Your task to perform on an android device: change your default location settings in chrome Image 0: 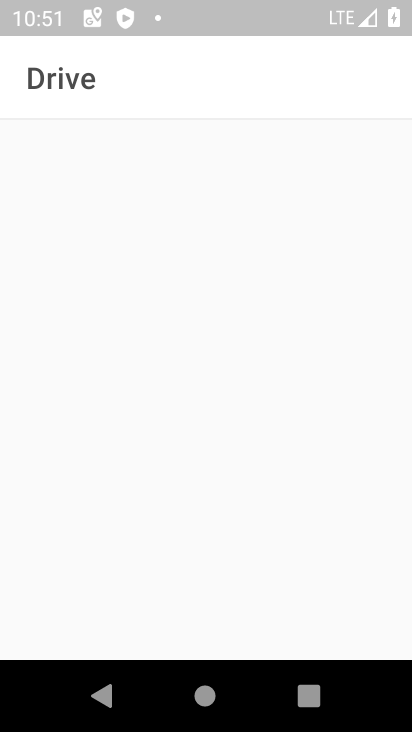
Step 0: press back button
Your task to perform on an android device: change your default location settings in chrome Image 1: 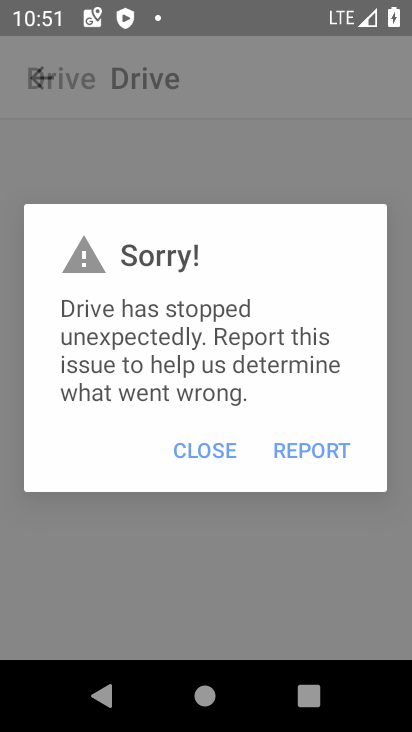
Step 1: press home button
Your task to perform on an android device: change your default location settings in chrome Image 2: 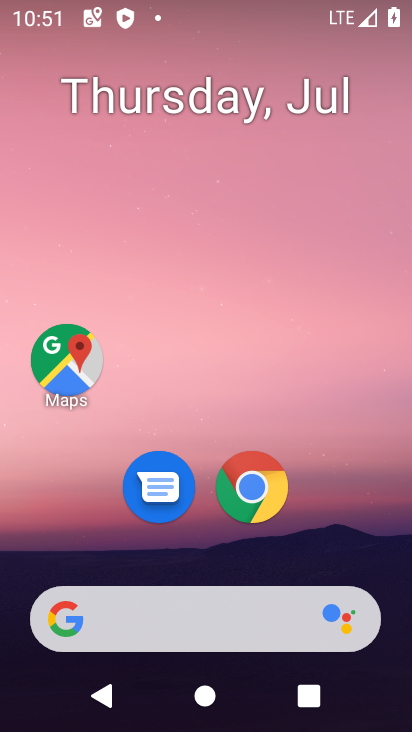
Step 2: drag from (176, 588) to (260, 3)
Your task to perform on an android device: change your default location settings in chrome Image 3: 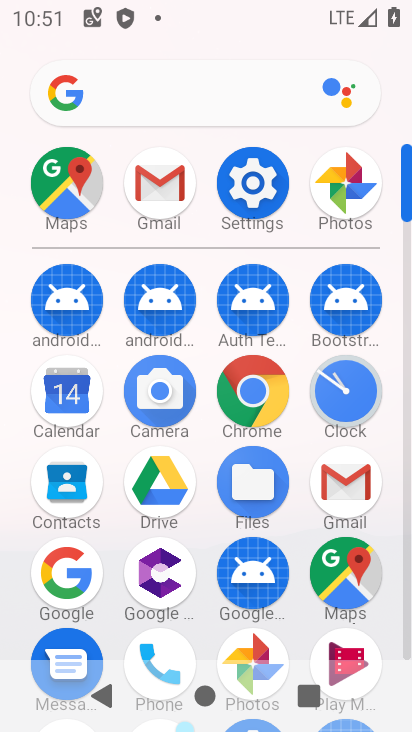
Step 3: click (273, 390)
Your task to perform on an android device: change your default location settings in chrome Image 4: 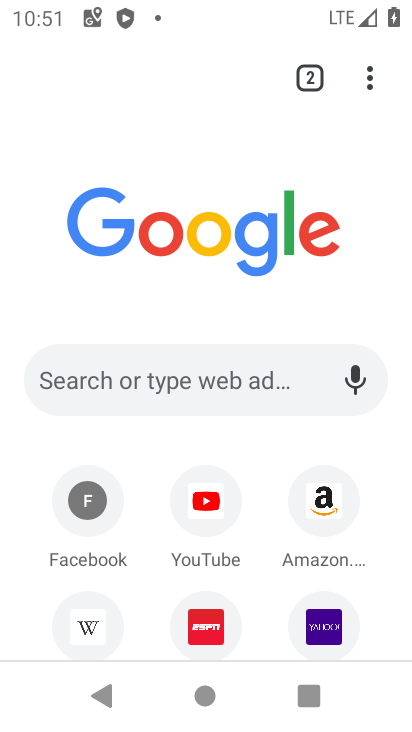
Step 4: drag from (372, 71) to (115, 540)
Your task to perform on an android device: change your default location settings in chrome Image 5: 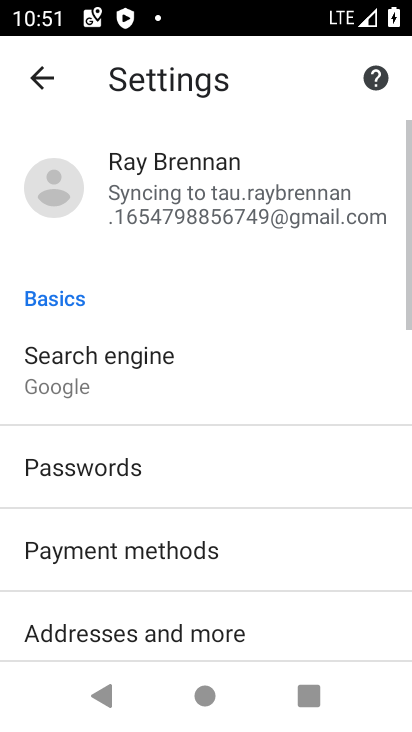
Step 5: drag from (99, 627) to (264, 178)
Your task to perform on an android device: change your default location settings in chrome Image 6: 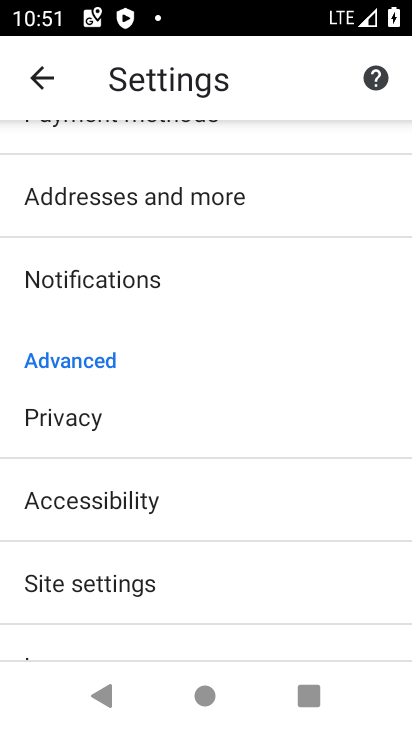
Step 6: drag from (118, 562) to (174, 236)
Your task to perform on an android device: change your default location settings in chrome Image 7: 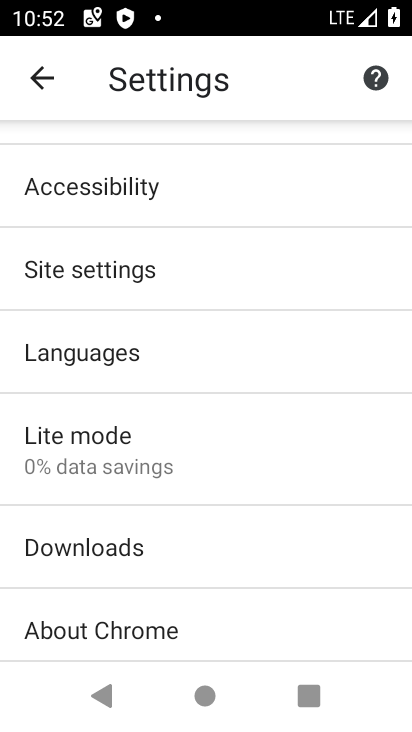
Step 7: click (159, 281)
Your task to perform on an android device: change your default location settings in chrome Image 8: 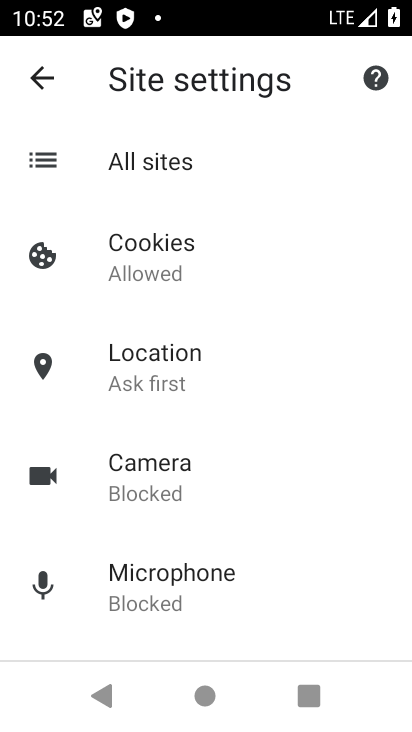
Step 8: click (132, 363)
Your task to perform on an android device: change your default location settings in chrome Image 9: 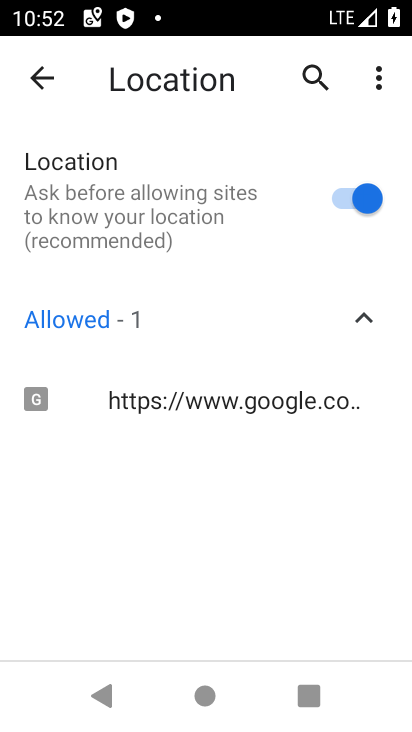
Step 9: click (196, 395)
Your task to perform on an android device: change your default location settings in chrome Image 10: 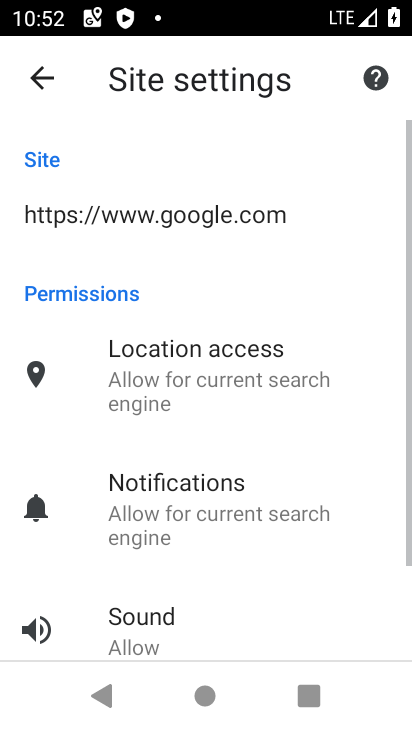
Step 10: click (197, 395)
Your task to perform on an android device: change your default location settings in chrome Image 11: 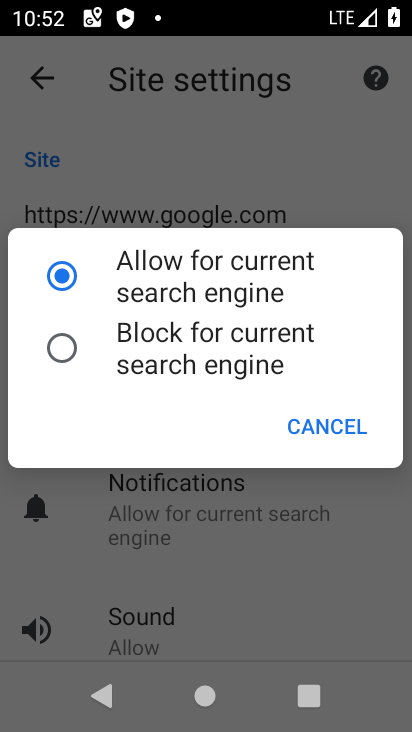
Step 11: click (177, 358)
Your task to perform on an android device: change your default location settings in chrome Image 12: 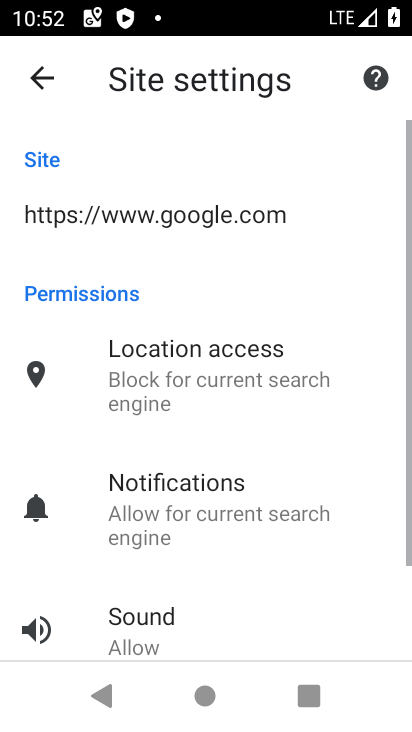
Step 12: task complete